Your task to perform on an android device: Open CNN.com Image 0: 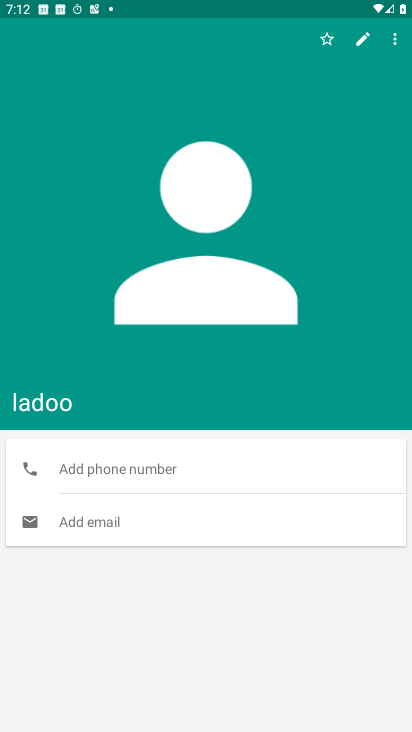
Step 0: press home button
Your task to perform on an android device: Open CNN.com Image 1: 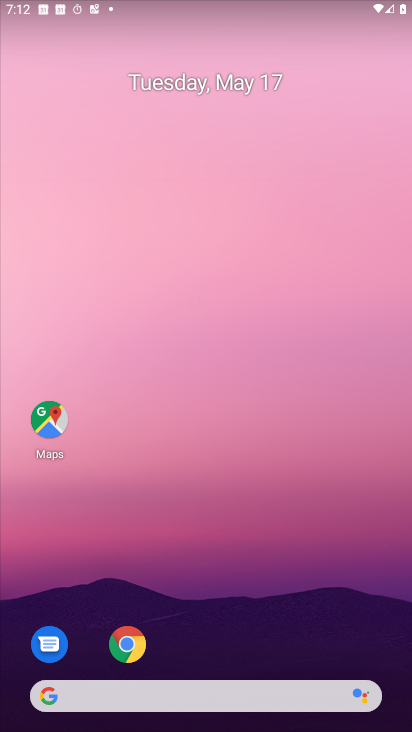
Step 1: drag from (327, 626) to (297, 38)
Your task to perform on an android device: Open CNN.com Image 2: 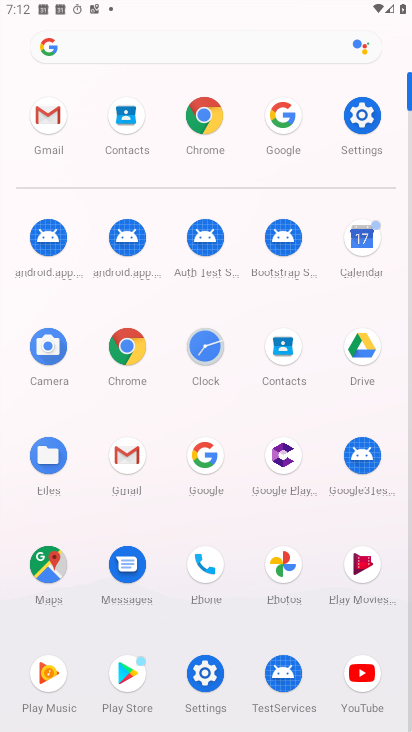
Step 2: click (292, 118)
Your task to perform on an android device: Open CNN.com Image 3: 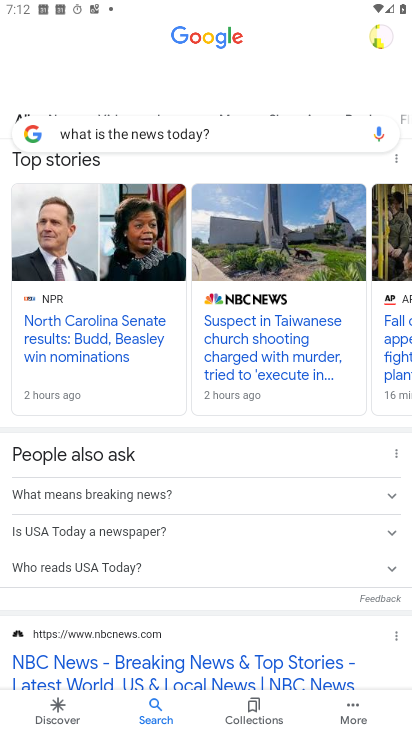
Step 3: press back button
Your task to perform on an android device: Open CNN.com Image 4: 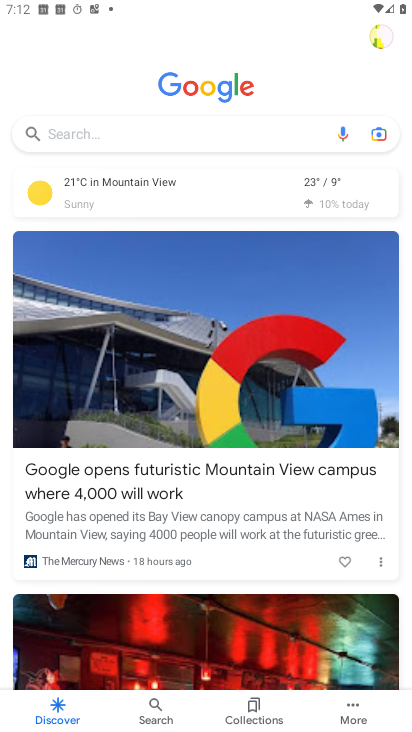
Step 4: click (120, 130)
Your task to perform on an android device: Open CNN.com Image 5: 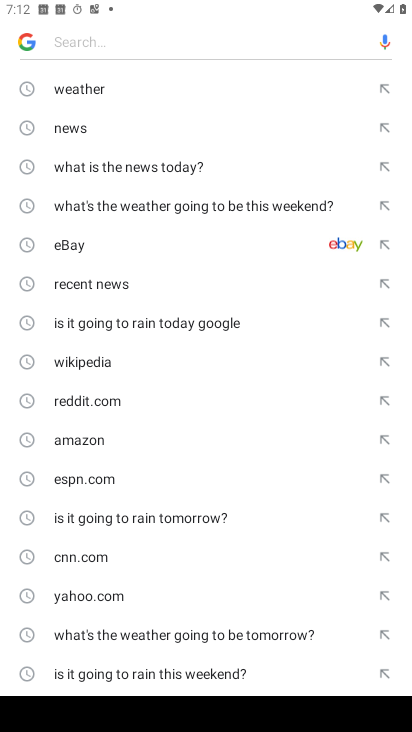
Step 5: click (100, 565)
Your task to perform on an android device: Open CNN.com Image 6: 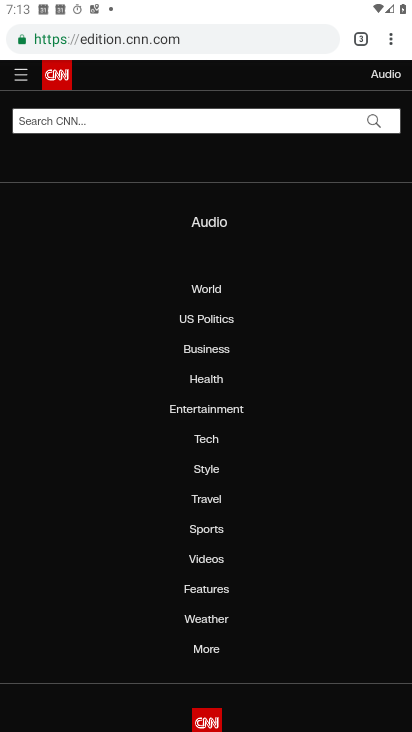
Step 6: task complete